Your task to perform on an android device: check android version Image 0: 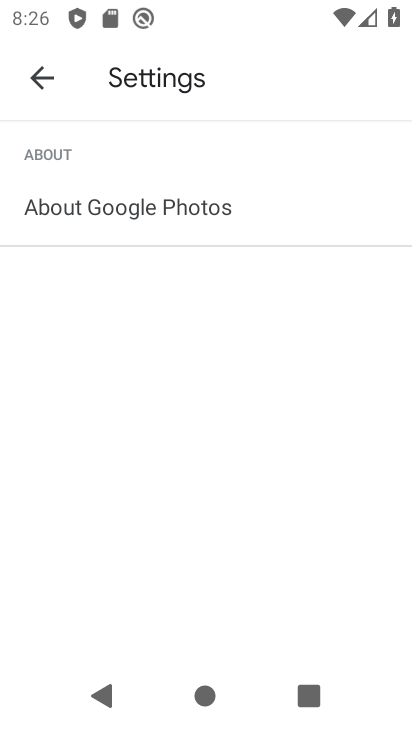
Step 0: press home button
Your task to perform on an android device: check android version Image 1: 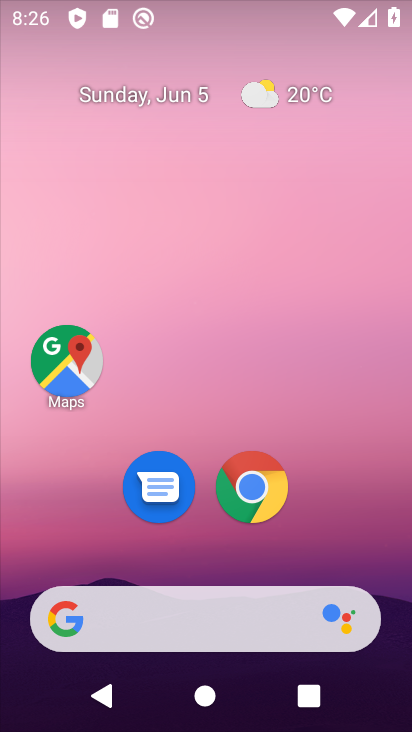
Step 1: drag from (253, 552) to (259, 229)
Your task to perform on an android device: check android version Image 2: 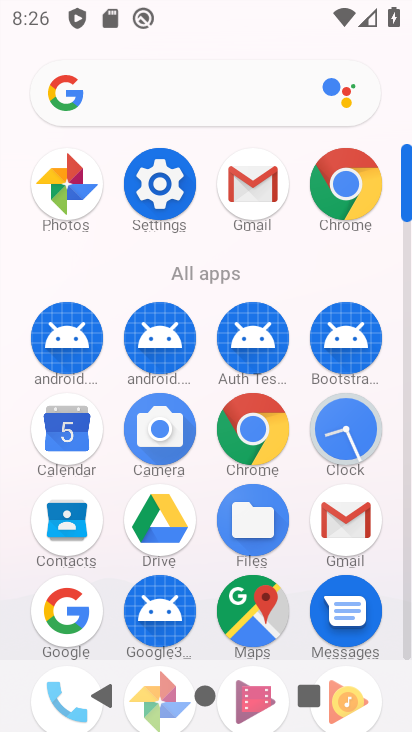
Step 2: click (160, 178)
Your task to perform on an android device: check android version Image 3: 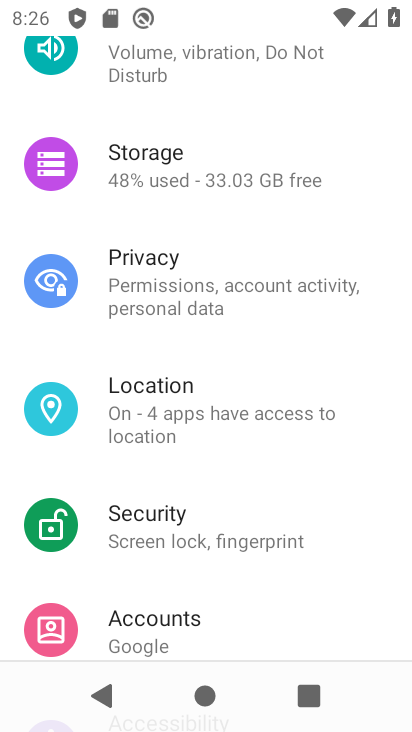
Step 3: drag from (289, 579) to (346, 112)
Your task to perform on an android device: check android version Image 4: 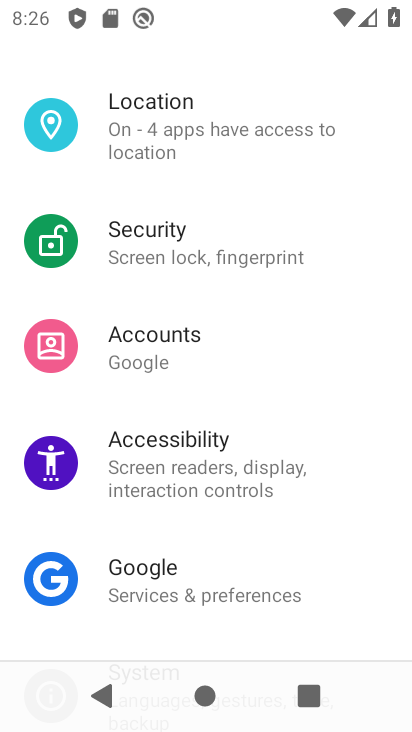
Step 4: drag from (235, 572) to (265, 165)
Your task to perform on an android device: check android version Image 5: 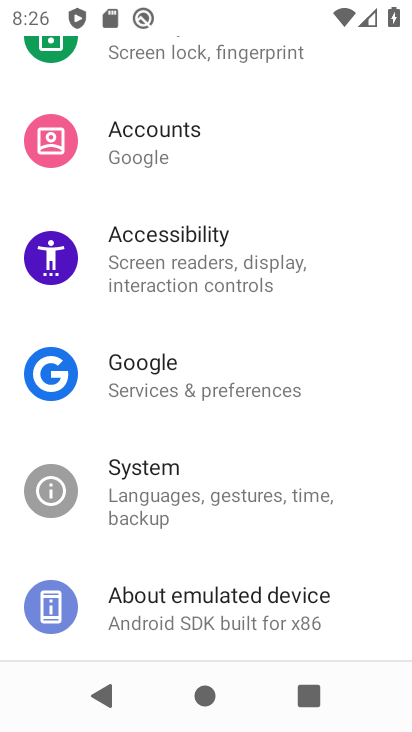
Step 5: drag from (210, 566) to (271, 196)
Your task to perform on an android device: check android version Image 6: 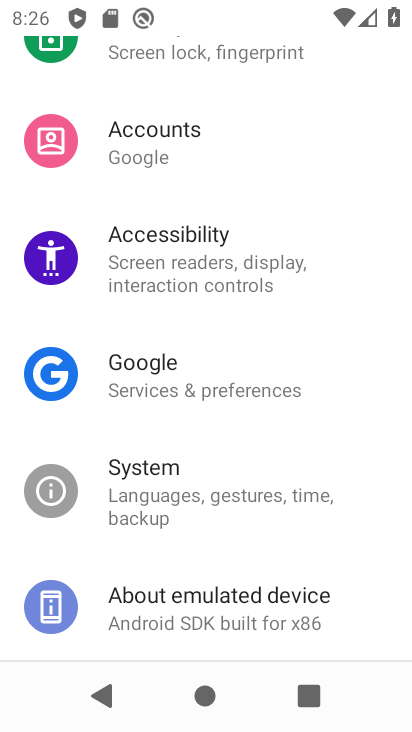
Step 6: click (217, 608)
Your task to perform on an android device: check android version Image 7: 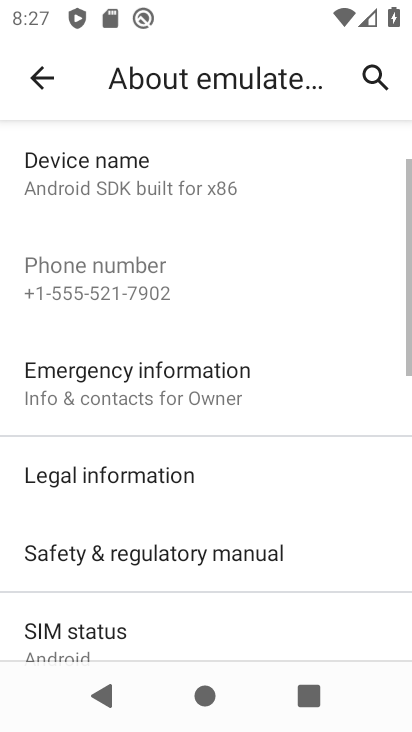
Step 7: task complete